Your task to perform on an android device: open a bookmark in the chrome app Image 0: 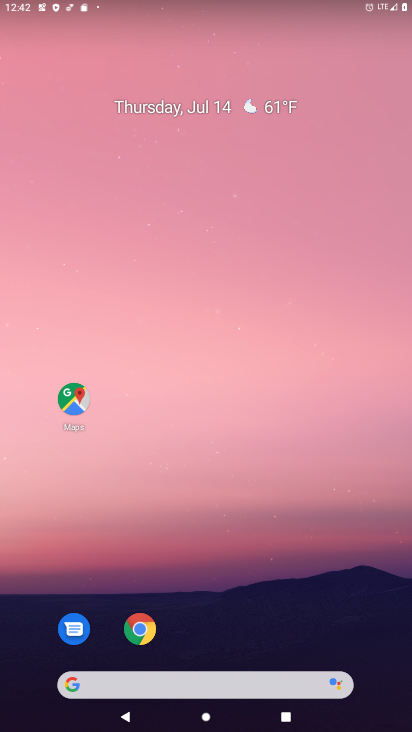
Step 0: click (142, 632)
Your task to perform on an android device: open a bookmark in the chrome app Image 1: 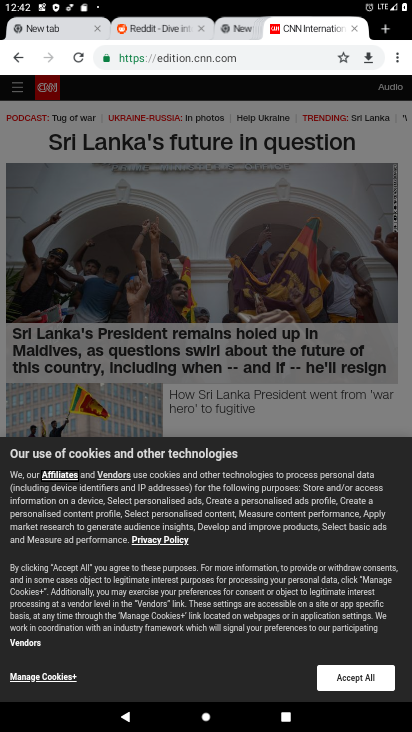
Step 1: click (399, 61)
Your task to perform on an android device: open a bookmark in the chrome app Image 2: 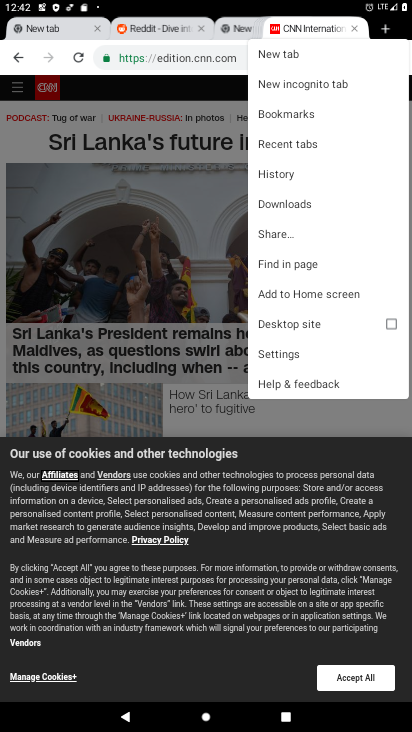
Step 2: click (289, 110)
Your task to perform on an android device: open a bookmark in the chrome app Image 3: 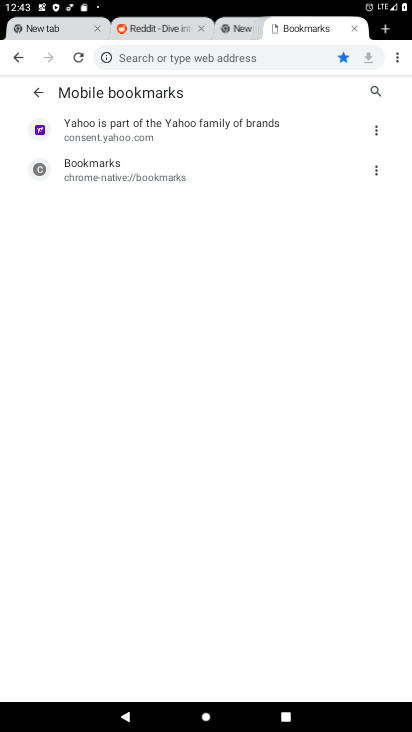
Step 3: task complete